Your task to perform on an android device: manage bookmarks in the chrome app Image 0: 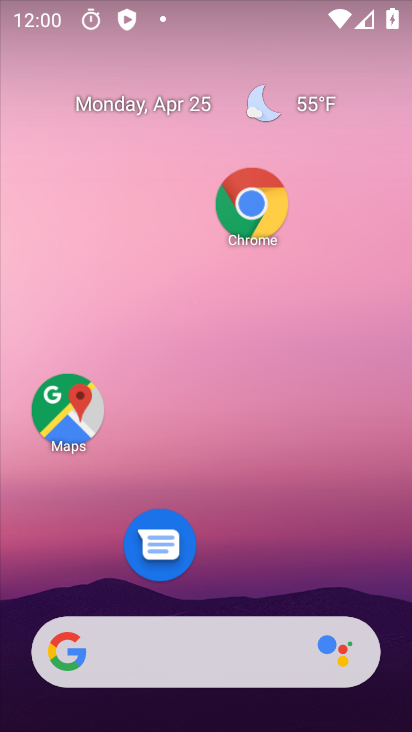
Step 0: drag from (290, 692) to (308, 117)
Your task to perform on an android device: manage bookmarks in the chrome app Image 1: 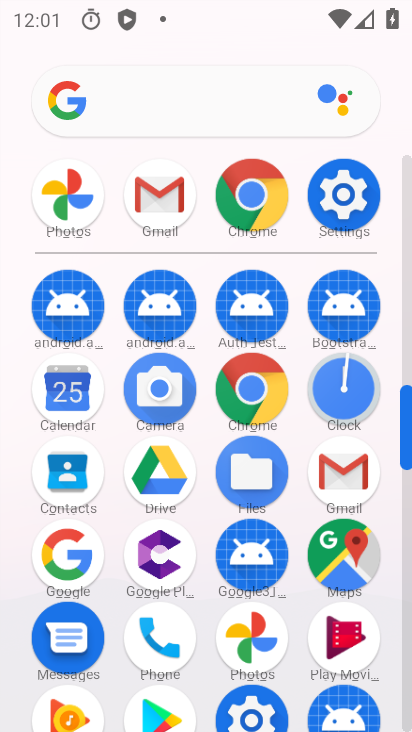
Step 1: click (245, 219)
Your task to perform on an android device: manage bookmarks in the chrome app Image 2: 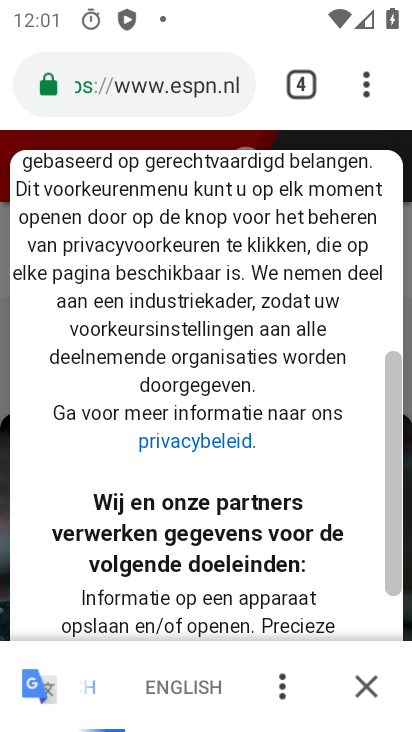
Step 2: click (363, 85)
Your task to perform on an android device: manage bookmarks in the chrome app Image 3: 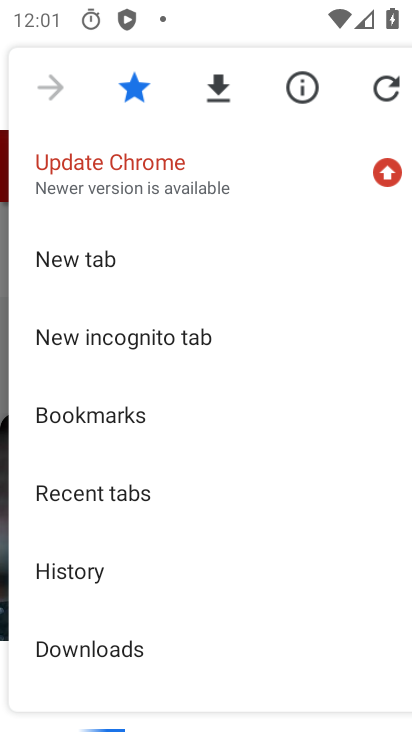
Step 3: click (125, 418)
Your task to perform on an android device: manage bookmarks in the chrome app Image 4: 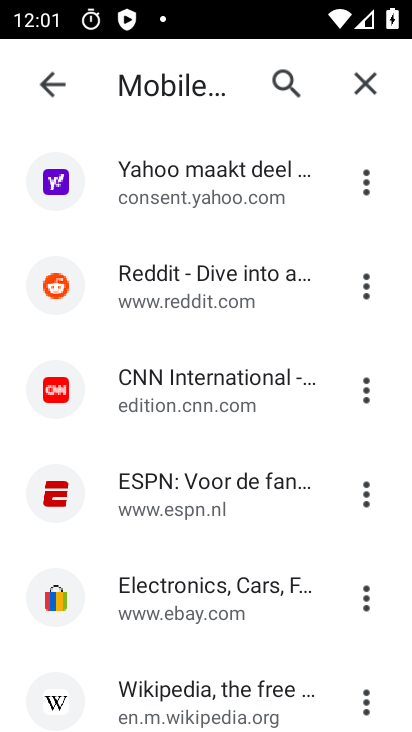
Step 4: task complete